Your task to perform on an android device: Search for jbl charge 4 on costco.com, select the first entry, add it to the cart, then select checkout. Image 0: 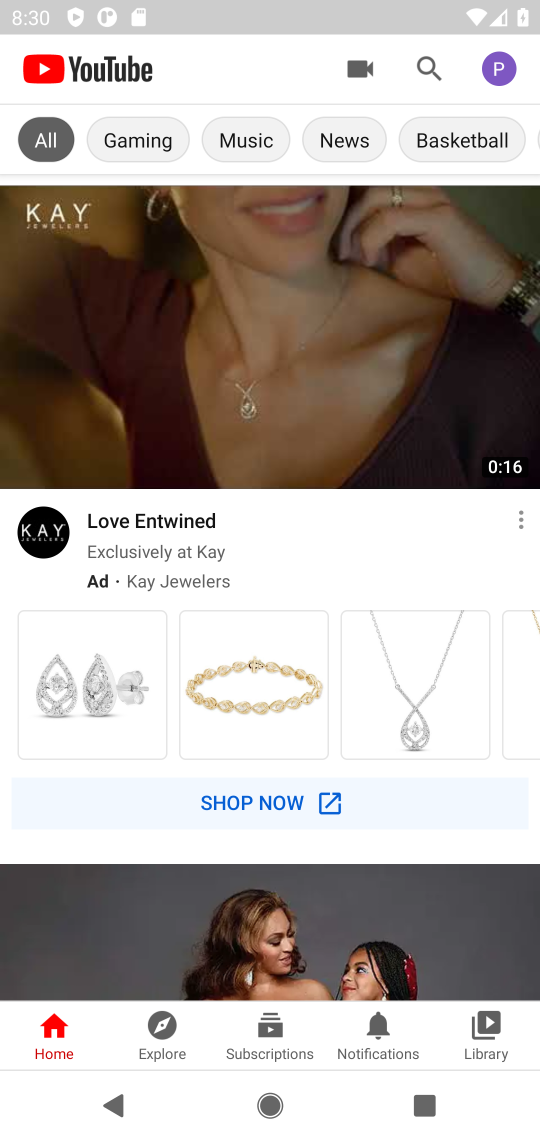
Step 0: press home button
Your task to perform on an android device: Search for jbl charge 4 on costco.com, select the first entry, add it to the cart, then select checkout. Image 1: 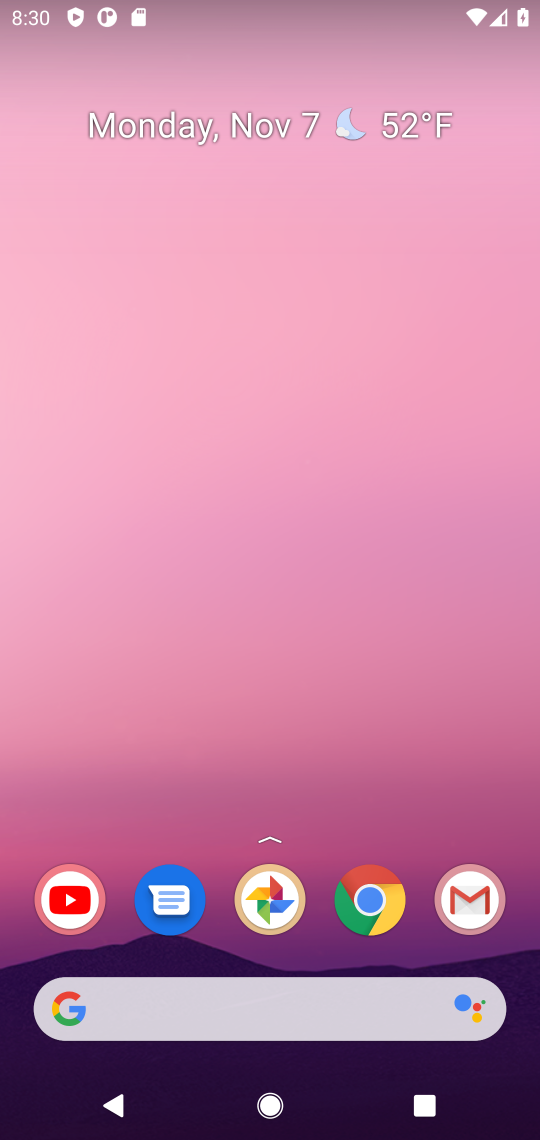
Step 1: click (372, 985)
Your task to perform on an android device: Search for jbl charge 4 on costco.com, select the first entry, add it to the cart, then select checkout. Image 2: 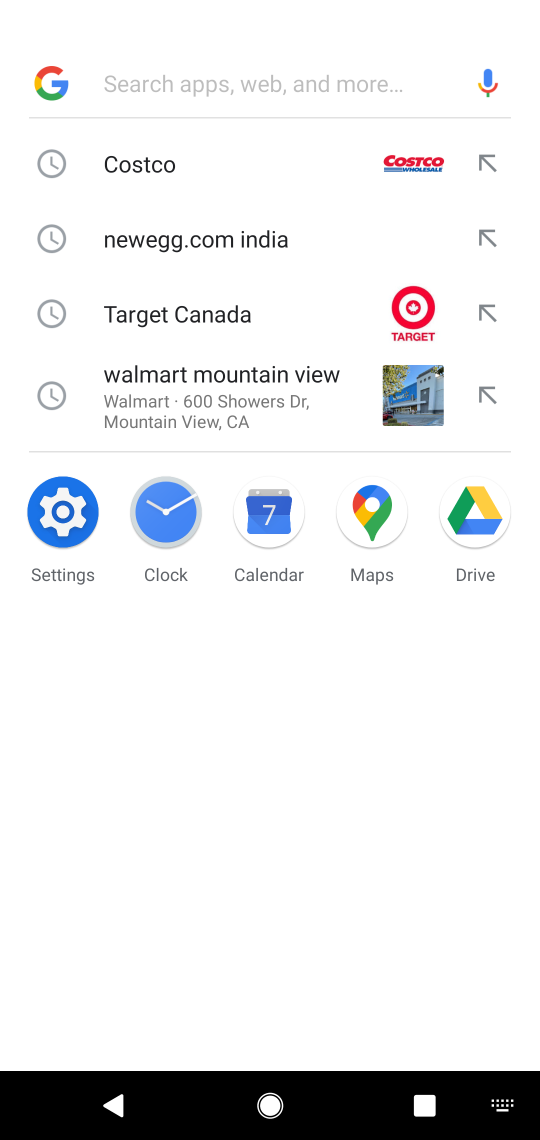
Step 2: click (354, 130)
Your task to perform on an android device: Search for jbl charge 4 on costco.com, select the first entry, add it to the cart, then select checkout. Image 3: 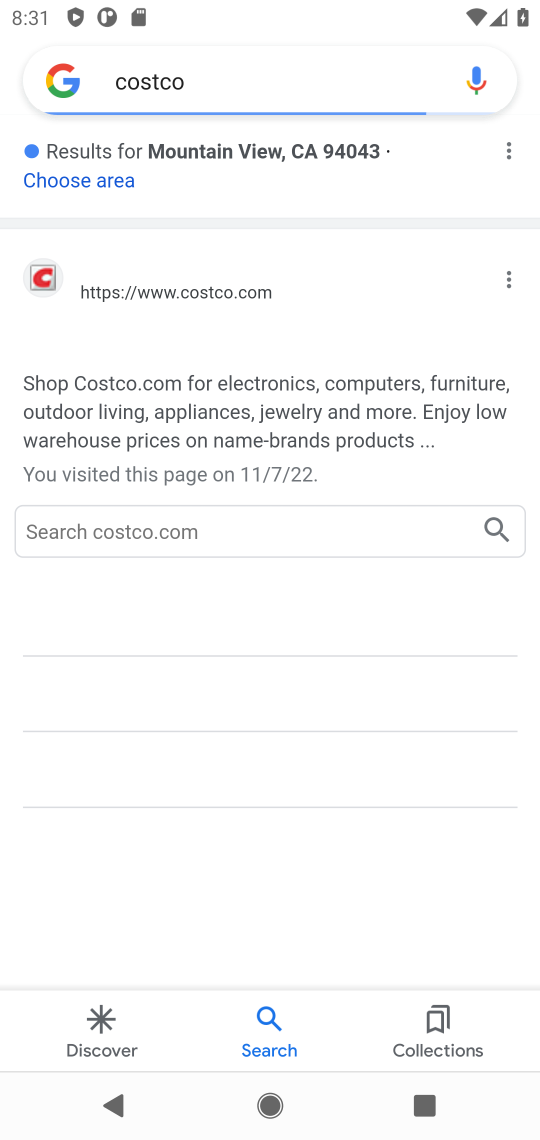
Step 3: task complete